Your task to perform on an android device: Open ESPN.com Image 0: 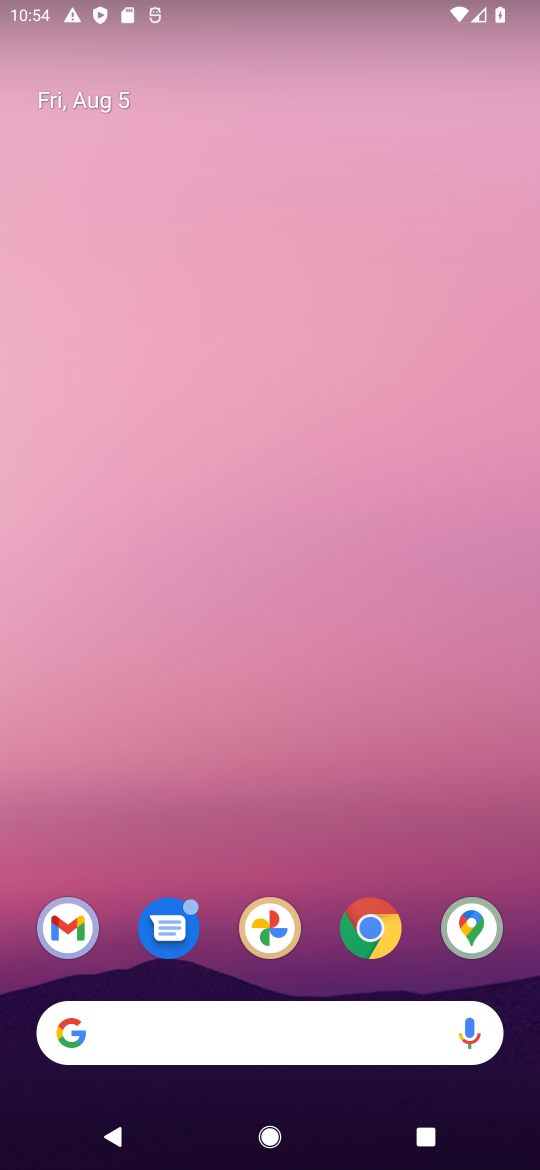
Step 0: click (360, 937)
Your task to perform on an android device: Open ESPN.com Image 1: 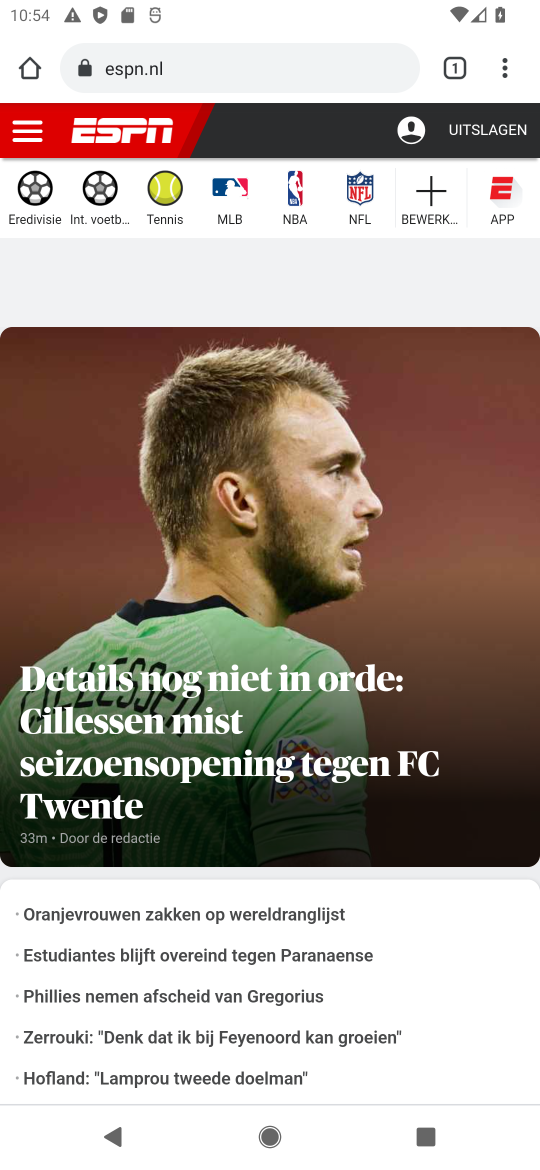
Step 1: task complete